Your task to perform on an android device: open app "Adobe Express: Graphic Design" Image 0: 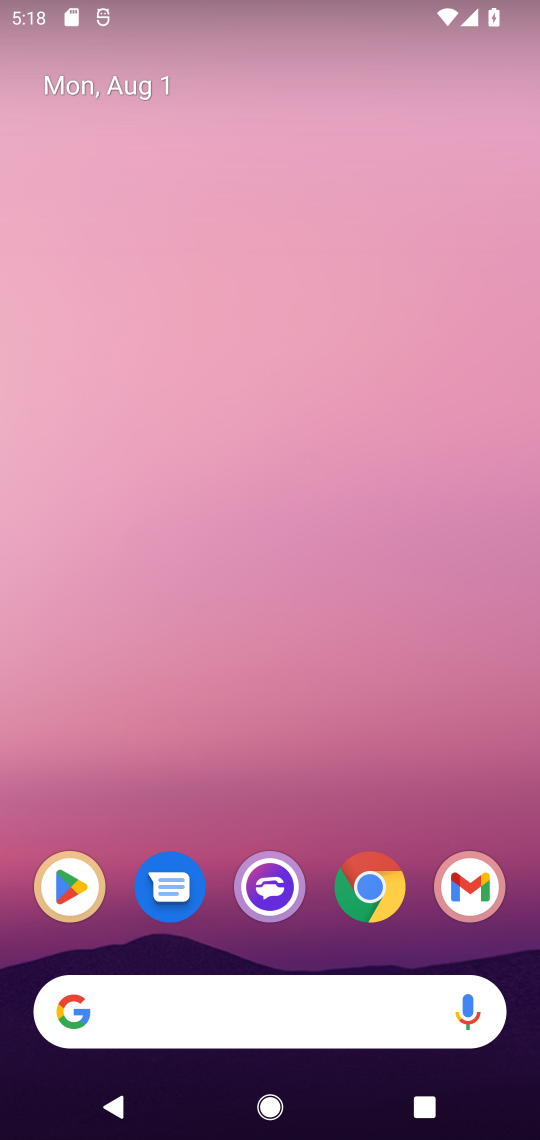
Step 0: click (59, 896)
Your task to perform on an android device: open app "Adobe Express: Graphic Design" Image 1: 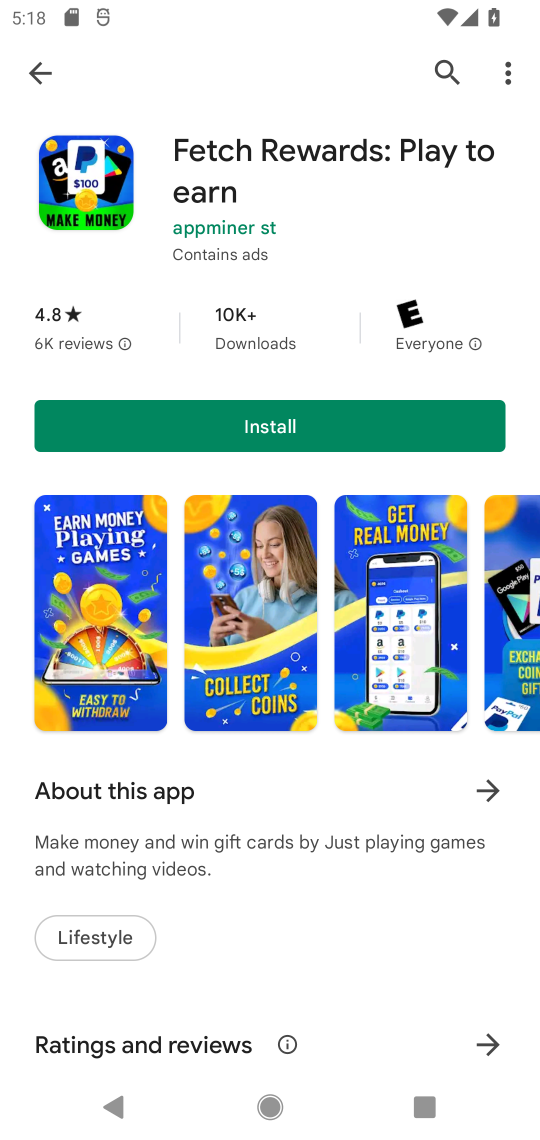
Step 1: click (29, 45)
Your task to perform on an android device: open app "Adobe Express: Graphic Design" Image 2: 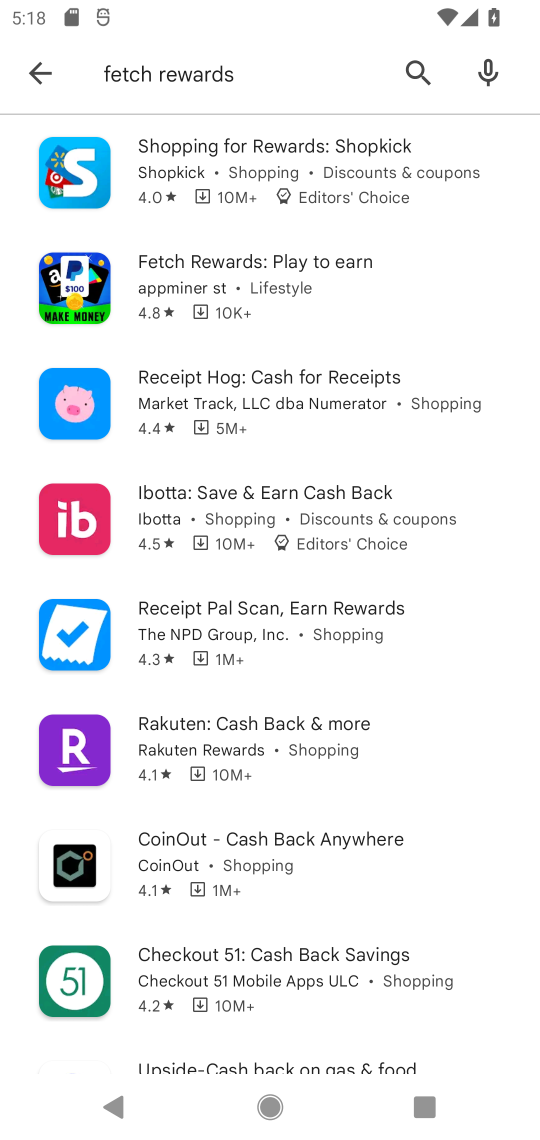
Step 2: click (52, 71)
Your task to perform on an android device: open app "Adobe Express: Graphic Design" Image 3: 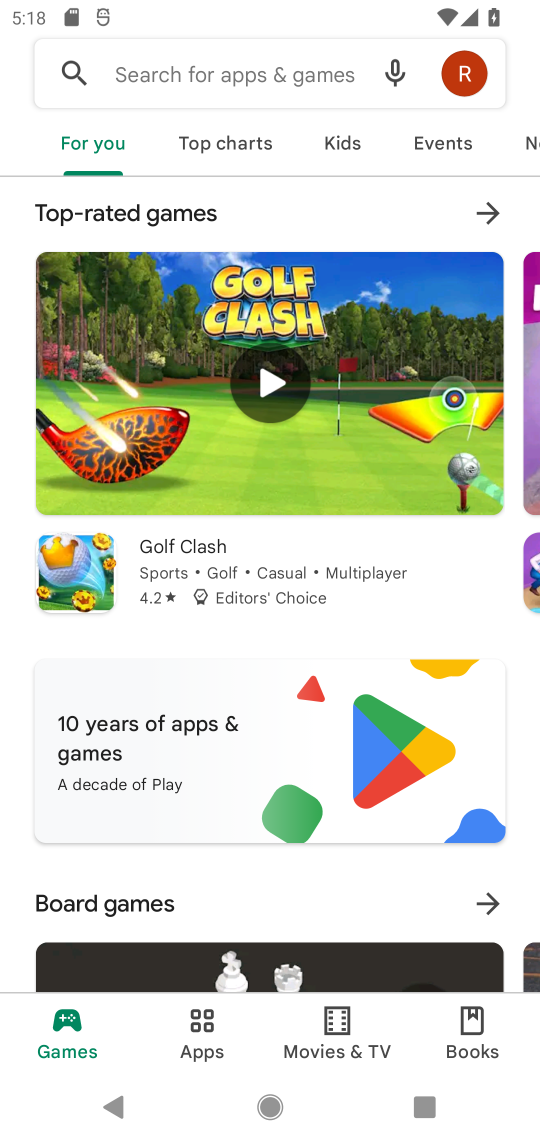
Step 3: click (128, 77)
Your task to perform on an android device: open app "Adobe Express: Graphic Design" Image 4: 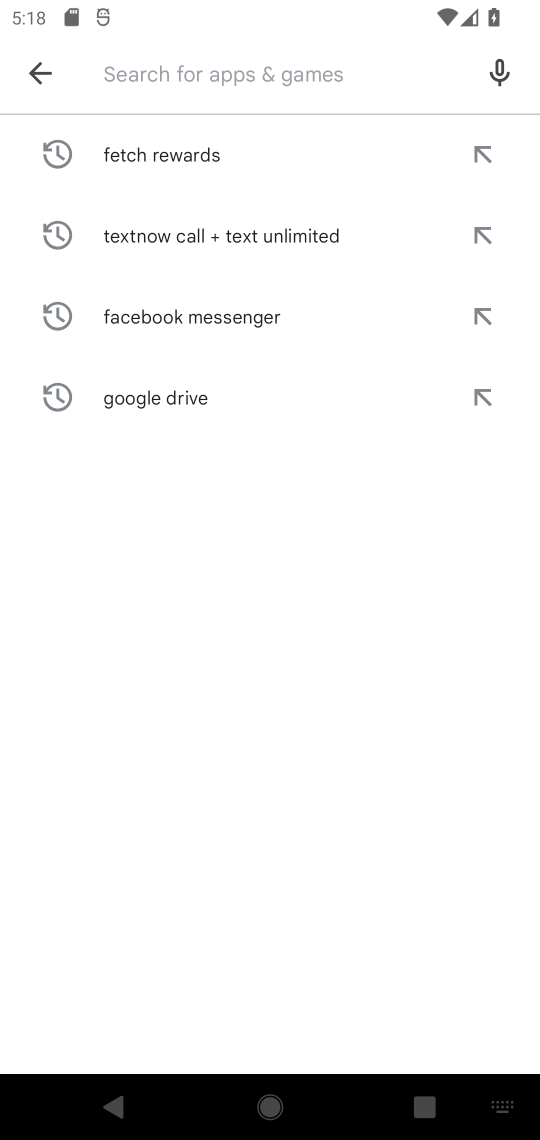
Step 4: type "Adobe Express"
Your task to perform on an android device: open app "Adobe Express: Graphic Design" Image 5: 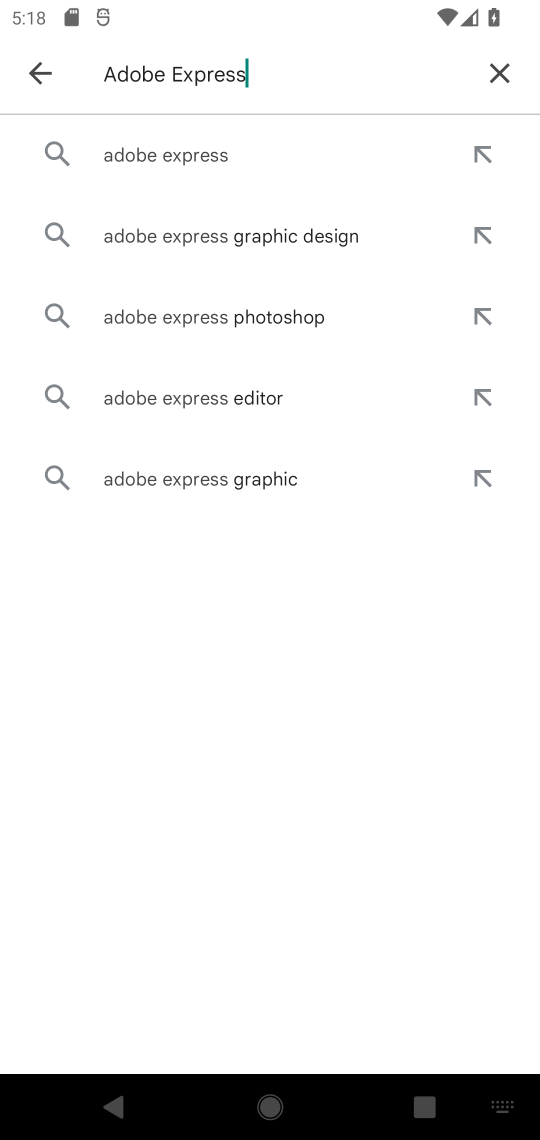
Step 5: click (198, 171)
Your task to perform on an android device: open app "Adobe Express: Graphic Design" Image 6: 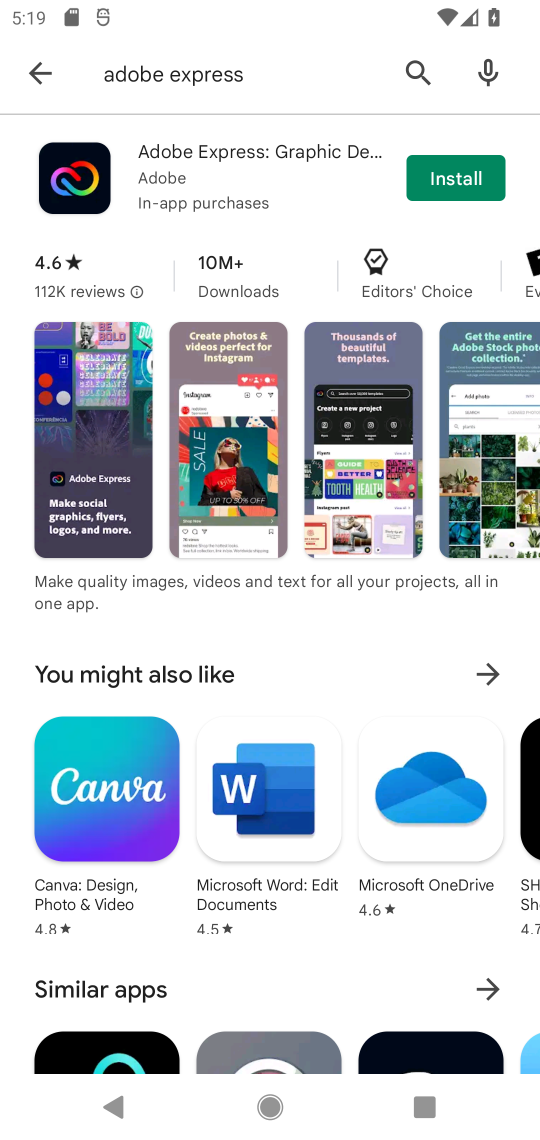
Step 6: task complete